Your task to perform on an android device: Search for vegetarian restaurants on Maps Image 0: 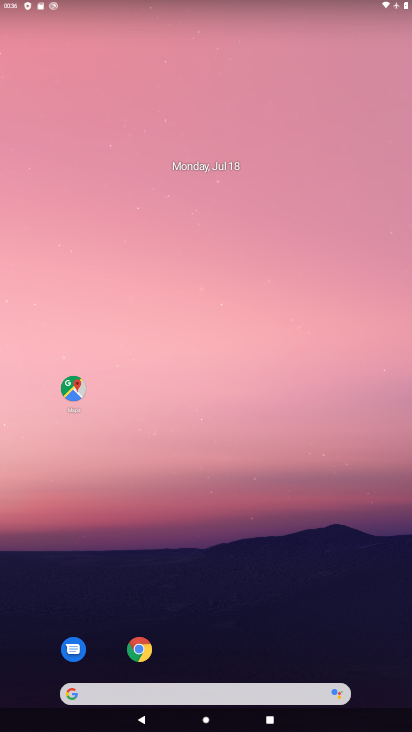
Step 0: click (75, 396)
Your task to perform on an android device: Search for vegetarian restaurants on Maps Image 1: 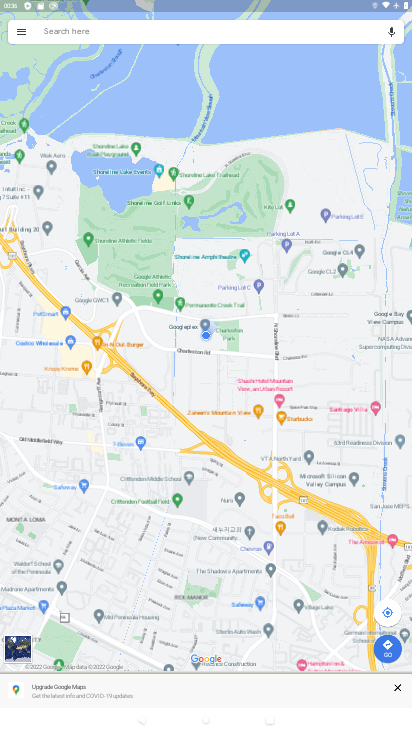
Step 1: type "vegetarian restaurants"
Your task to perform on an android device: Search for vegetarian restaurants on Maps Image 2: 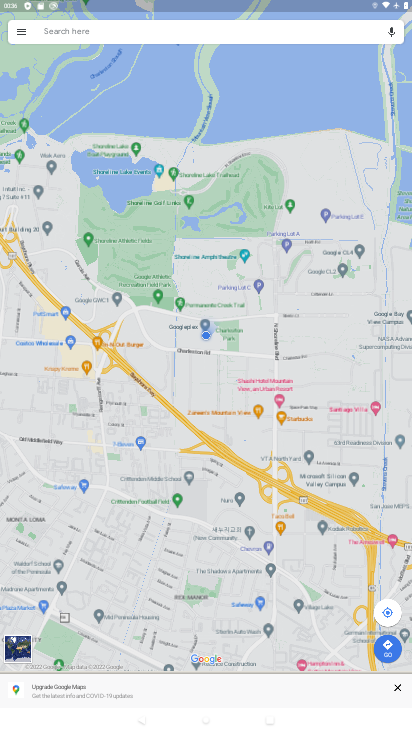
Step 2: click (94, 34)
Your task to perform on an android device: Search for vegetarian restaurants on Maps Image 3: 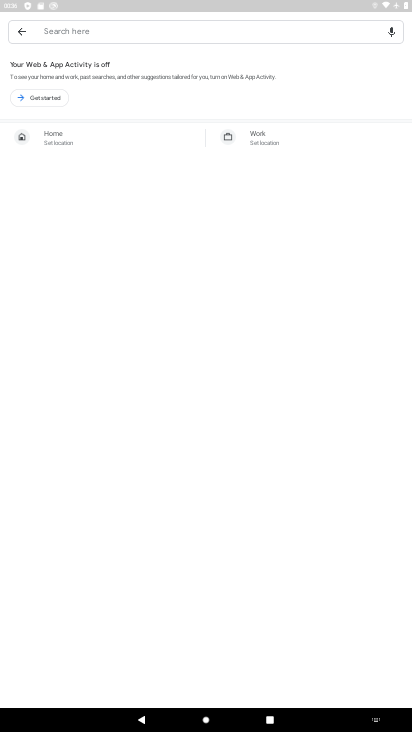
Step 3: type "vegetarian restaurants"
Your task to perform on an android device: Search for vegetarian restaurants on Maps Image 4: 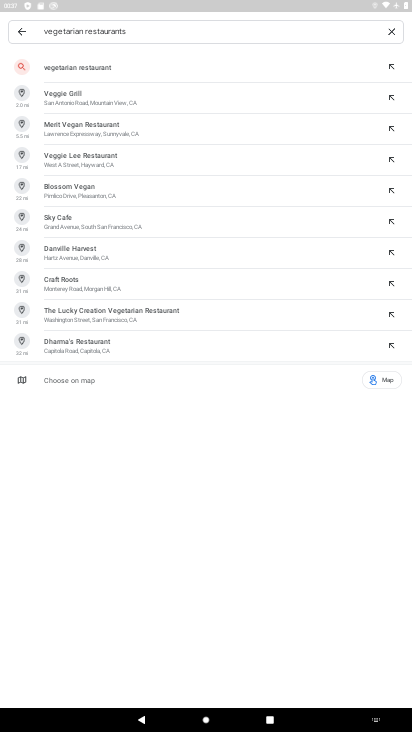
Step 4: click (112, 60)
Your task to perform on an android device: Search for vegetarian restaurants on Maps Image 5: 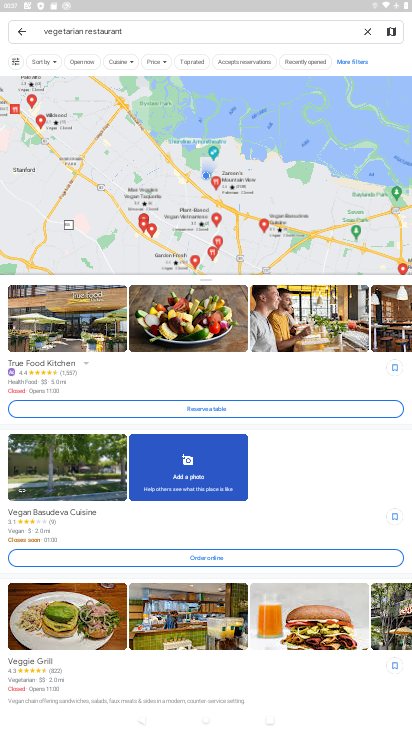
Step 5: task complete